Your task to perform on an android device: change the clock display to analog Image 0: 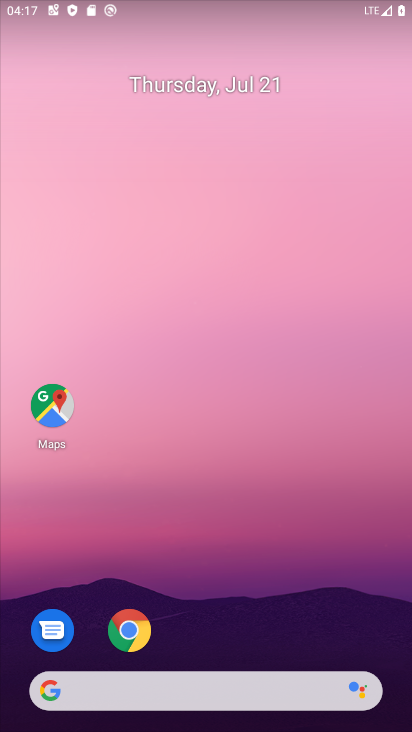
Step 0: click (209, 94)
Your task to perform on an android device: change the clock display to analog Image 1: 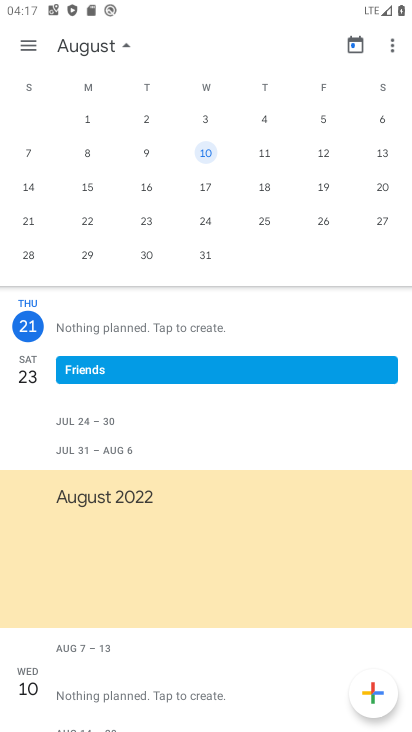
Step 1: press home button
Your task to perform on an android device: change the clock display to analog Image 2: 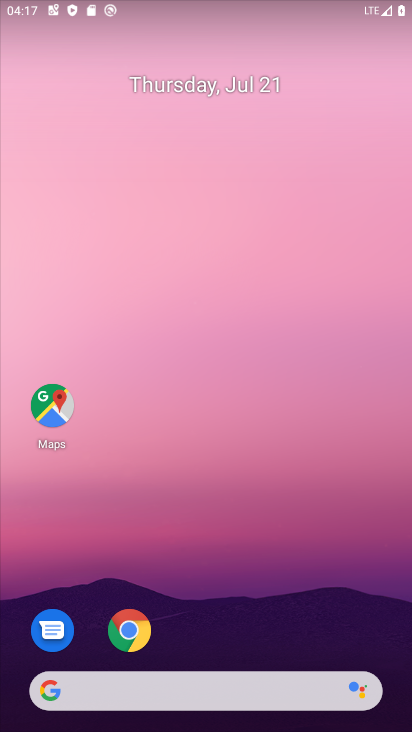
Step 2: drag from (198, 630) to (212, 142)
Your task to perform on an android device: change the clock display to analog Image 3: 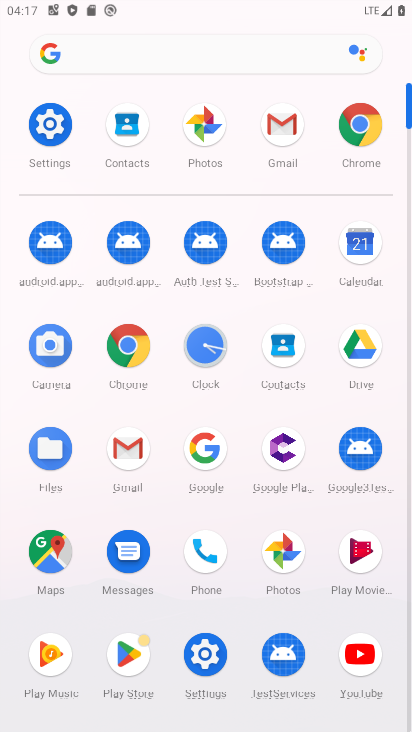
Step 3: click (215, 353)
Your task to perform on an android device: change the clock display to analog Image 4: 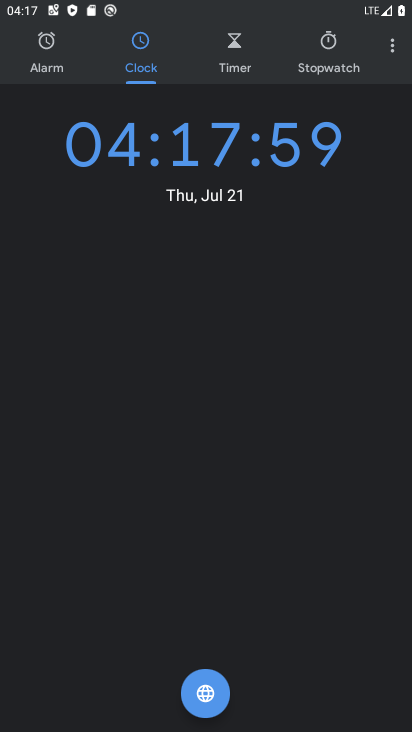
Step 4: click (385, 59)
Your task to perform on an android device: change the clock display to analog Image 5: 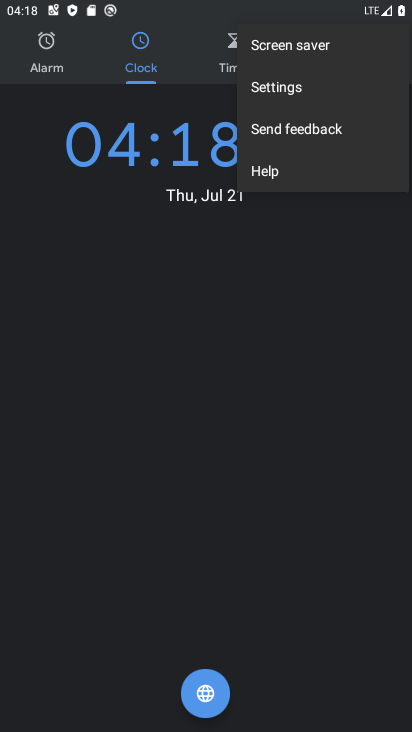
Step 5: click (309, 90)
Your task to perform on an android device: change the clock display to analog Image 6: 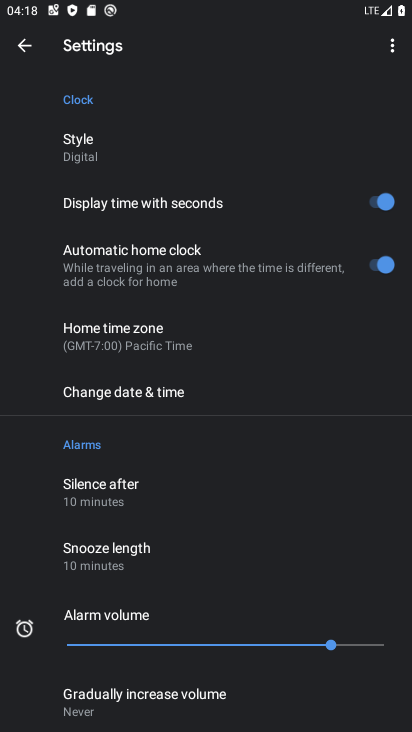
Step 6: click (98, 172)
Your task to perform on an android device: change the clock display to analog Image 7: 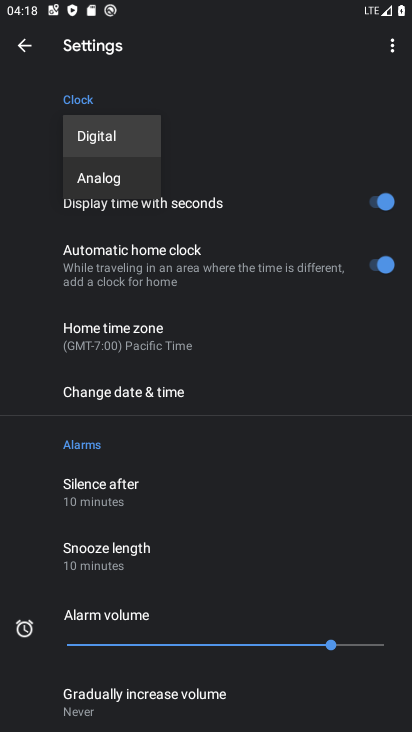
Step 7: click (98, 172)
Your task to perform on an android device: change the clock display to analog Image 8: 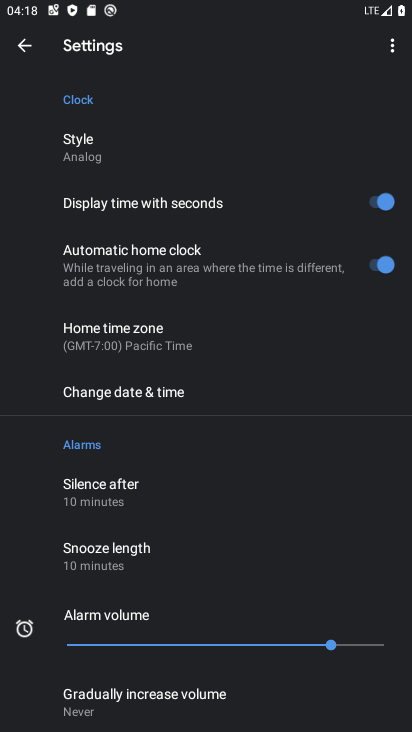
Step 8: task complete